Your task to perform on an android device: open chrome and create a bookmark for the current page Image 0: 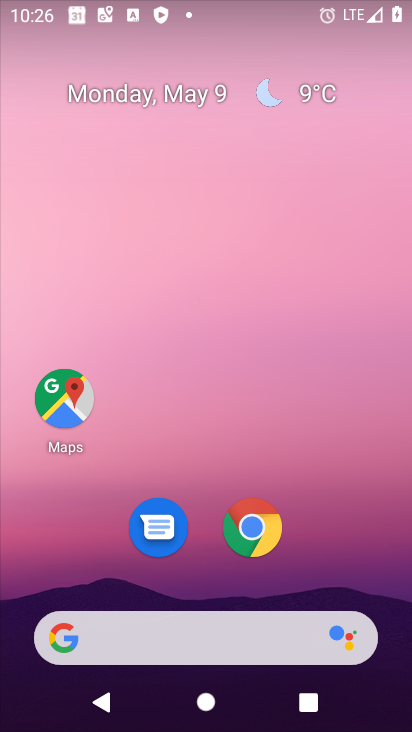
Step 0: click (248, 526)
Your task to perform on an android device: open chrome and create a bookmark for the current page Image 1: 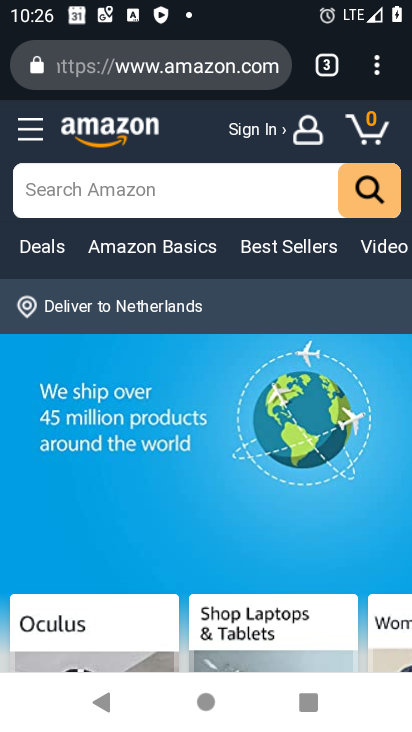
Step 1: click (373, 70)
Your task to perform on an android device: open chrome and create a bookmark for the current page Image 2: 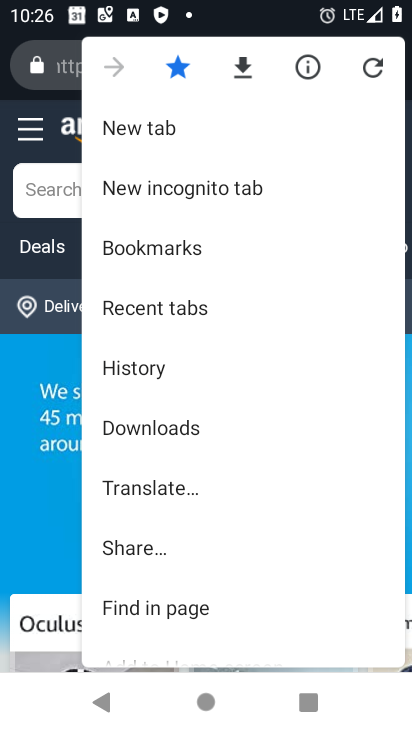
Step 2: task complete